Your task to perform on an android device: Open Chrome and go to settings Image 0: 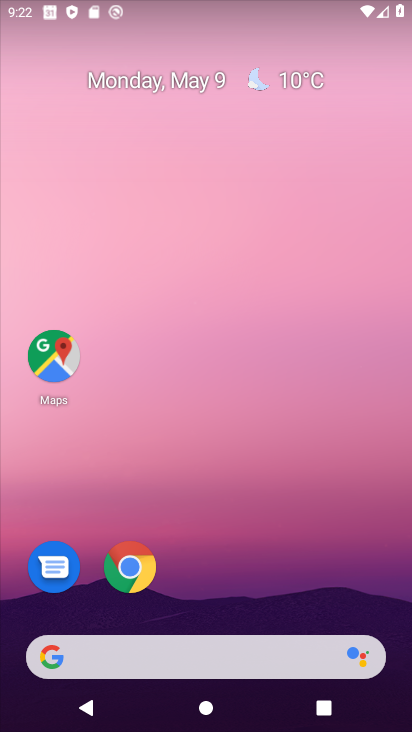
Step 0: click (131, 557)
Your task to perform on an android device: Open Chrome and go to settings Image 1: 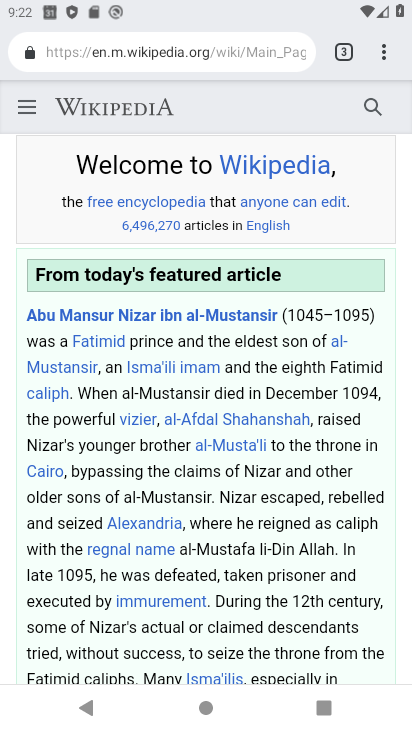
Step 1: click (383, 50)
Your task to perform on an android device: Open Chrome and go to settings Image 2: 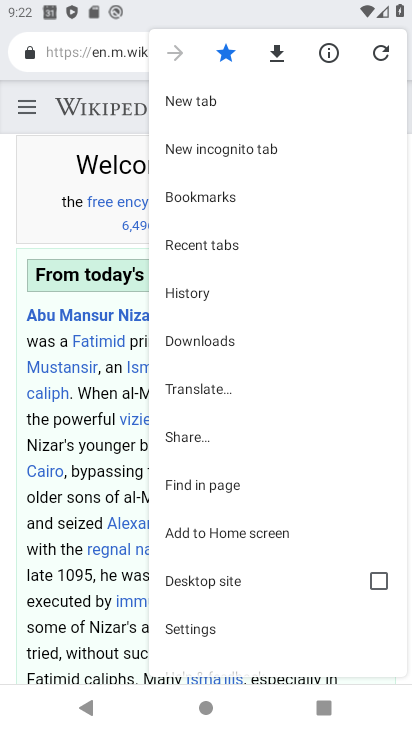
Step 2: click (212, 623)
Your task to perform on an android device: Open Chrome and go to settings Image 3: 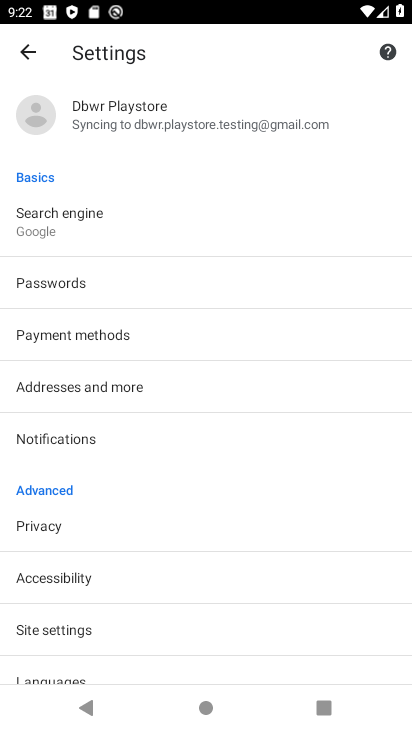
Step 3: task complete